Your task to perform on an android device: turn on bluetooth scan Image 0: 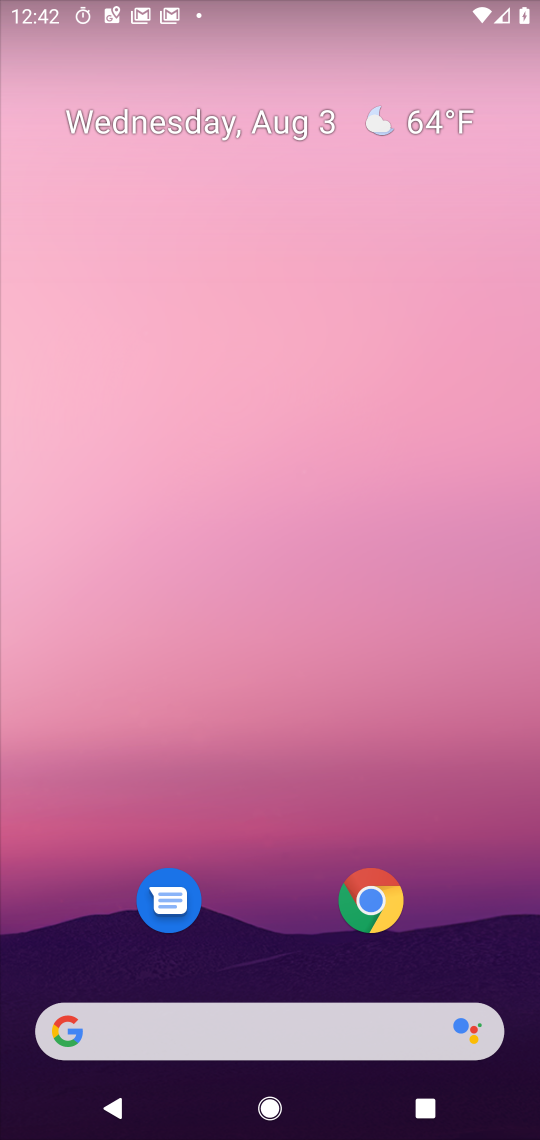
Step 0: drag from (277, 946) to (418, 115)
Your task to perform on an android device: turn on bluetooth scan Image 1: 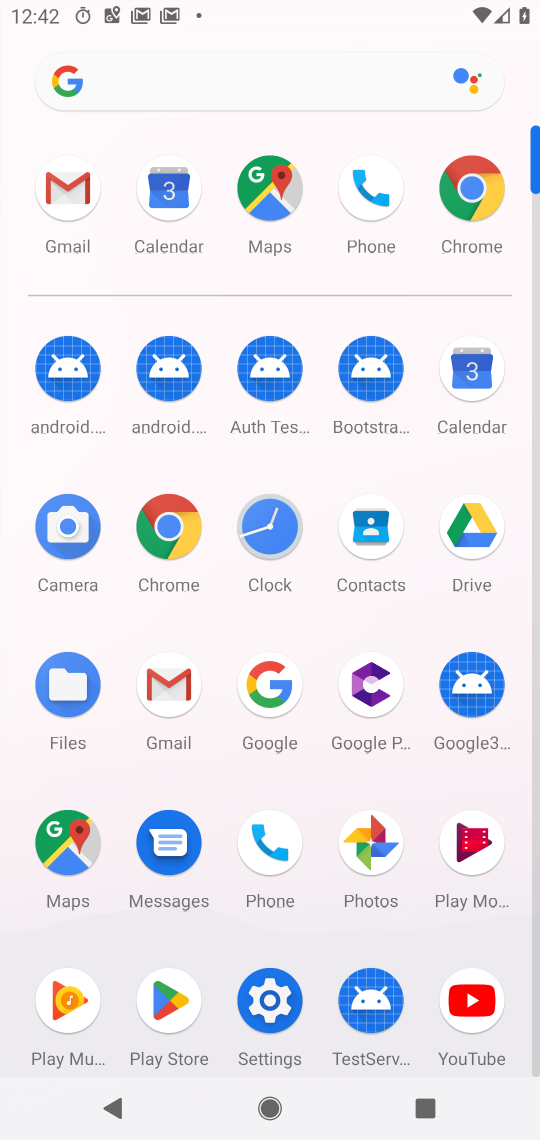
Step 1: click (267, 999)
Your task to perform on an android device: turn on bluetooth scan Image 2: 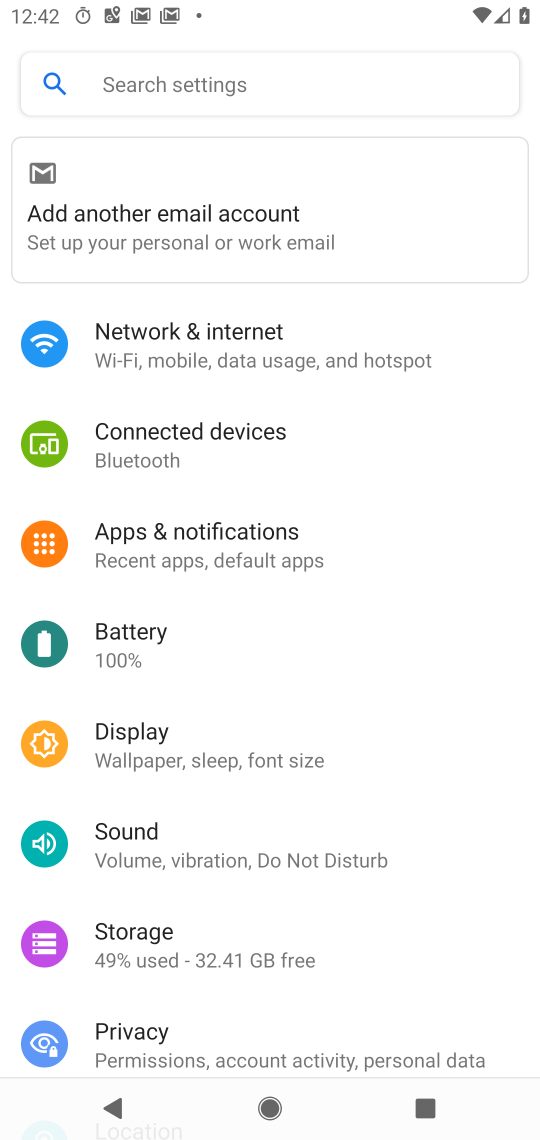
Step 2: drag from (266, 949) to (323, 295)
Your task to perform on an android device: turn on bluetooth scan Image 3: 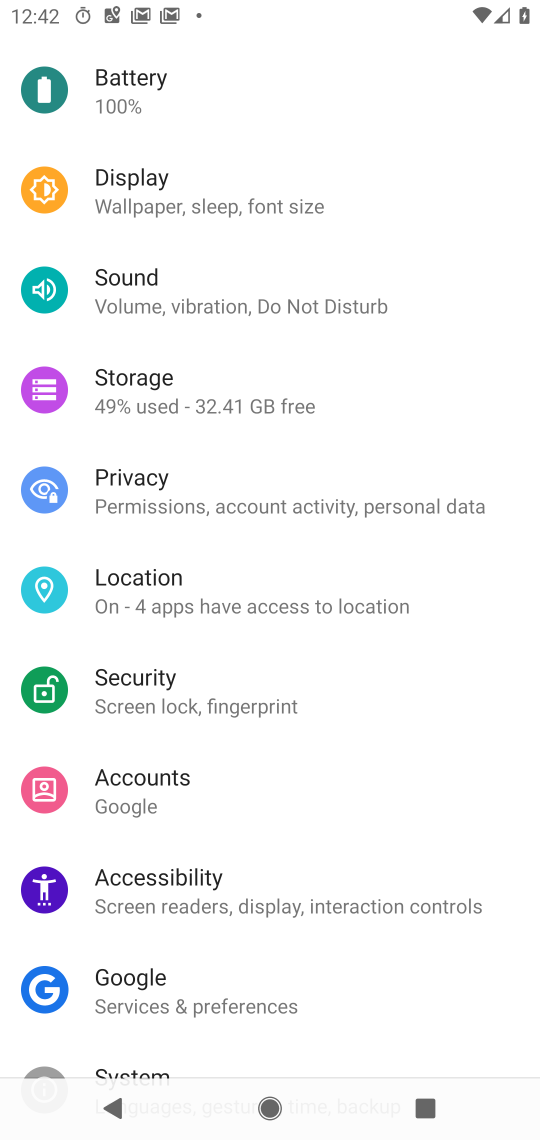
Step 3: click (168, 592)
Your task to perform on an android device: turn on bluetooth scan Image 4: 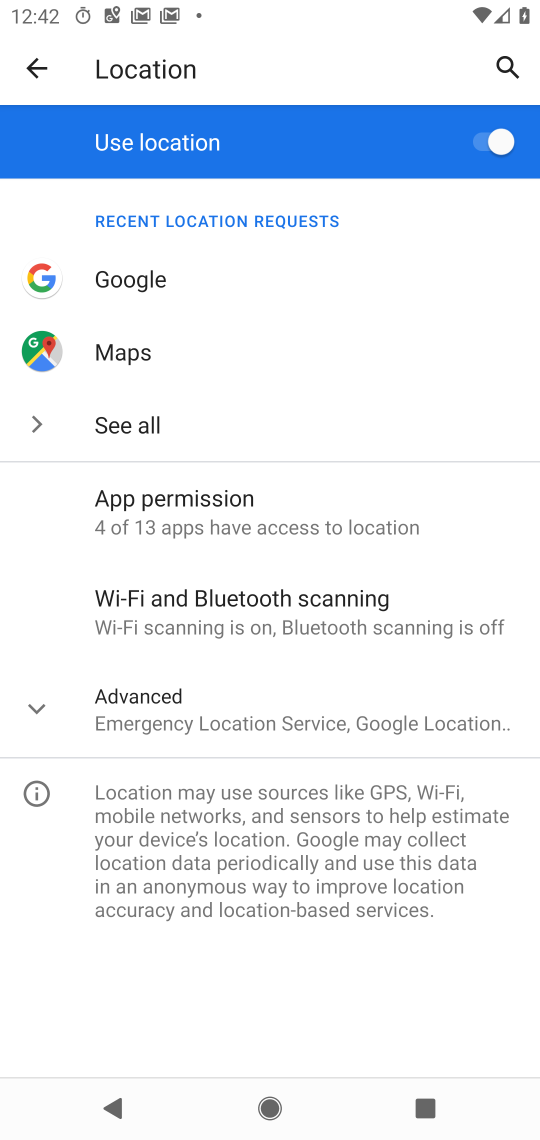
Step 4: click (192, 709)
Your task to perform on an android device: turn on bluetooth scan Image 5: 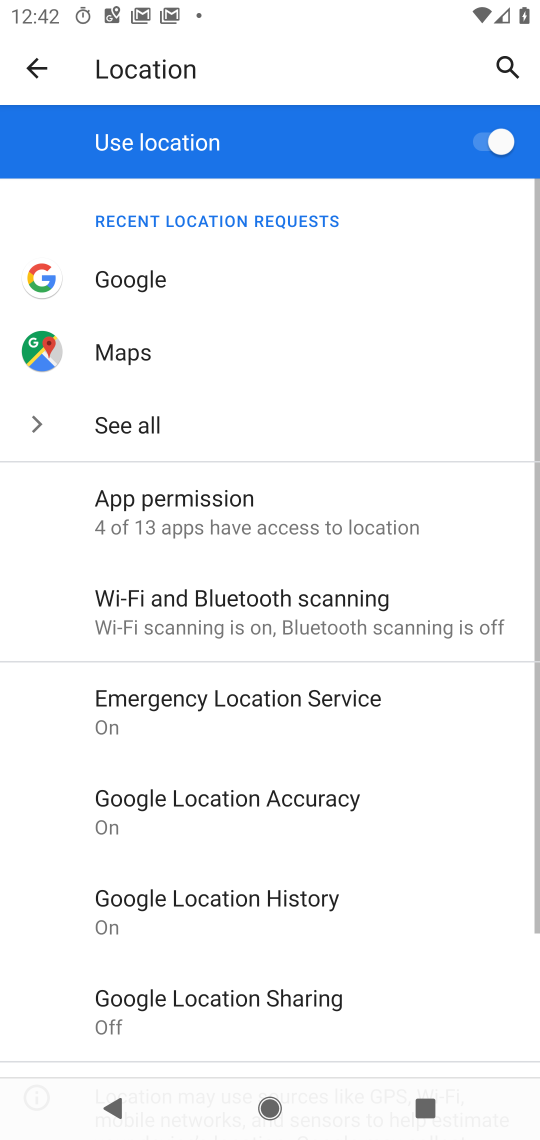
Step 5: click (219, 605)
Your task to perform on an android device: turn on bluetooth scan Image 6: 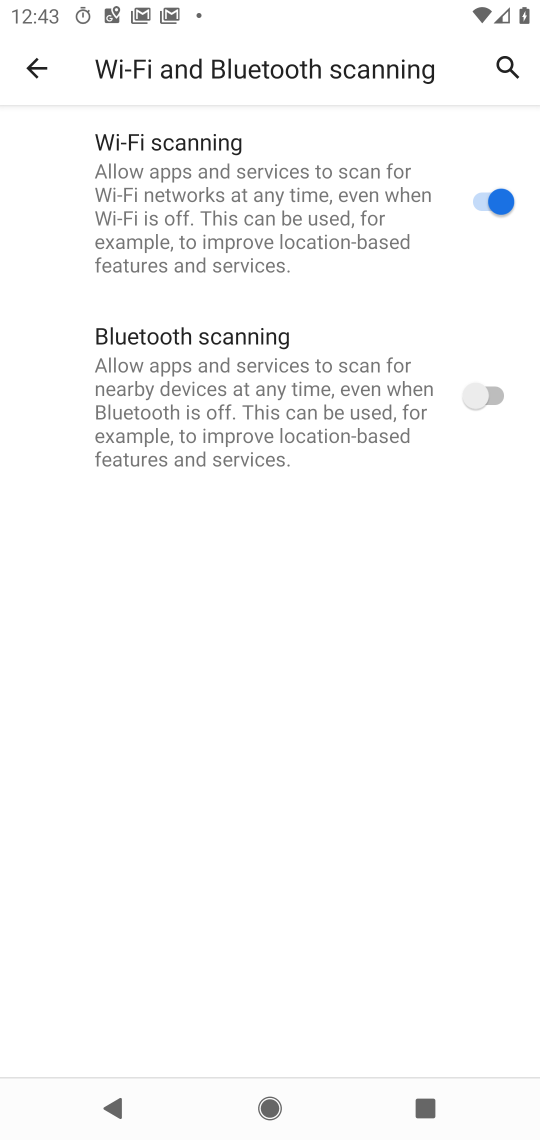
Step 6: click (474, 395)
Your task to perform on an android device: turn on bluetooth scan Image 7: 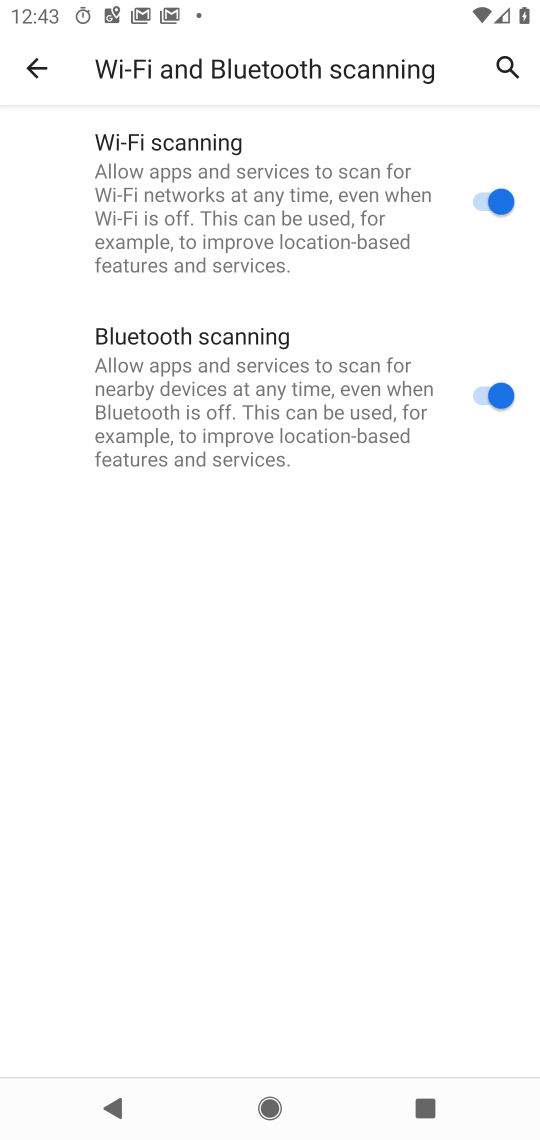
Step 7: task complete